Your task to perform on an android device: Search for vegetarian restaurants on Maps Image 0: 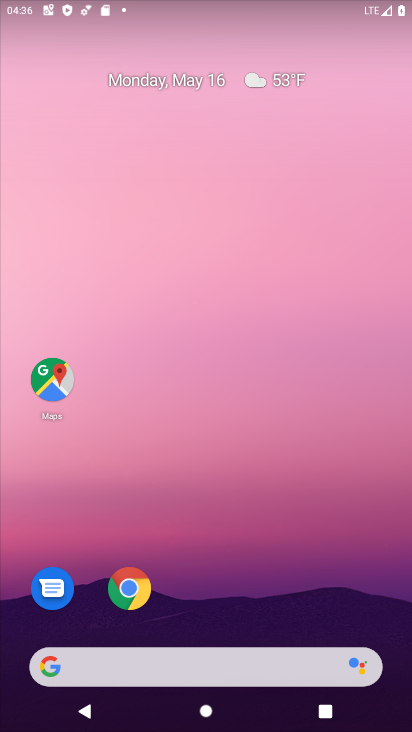
Step 0: drag from (224, 463) to (162, 6)
Your task to perform on an android device: Search for vegetarian restaurants on Maps Image 1: 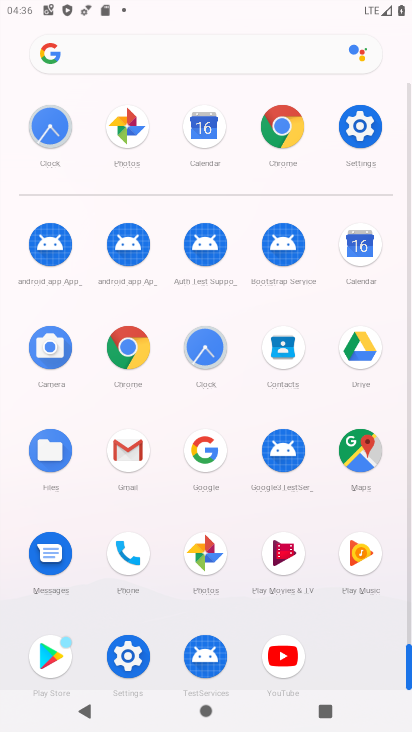
Step 1: drag from (14, 545) to (31, 287)
Your task to perform on an android device: Search for vegetarian restaurants on Maps Image 2: 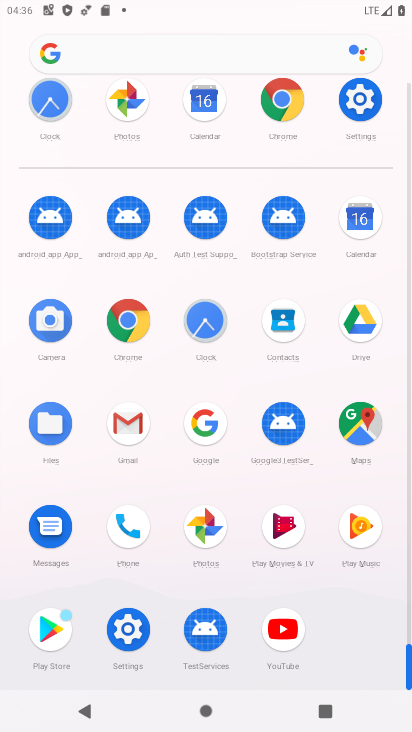
Step 2: click (361, 421)
Your task to perform on an android device: Search for vegetarian restaurants on Maps Image 3: 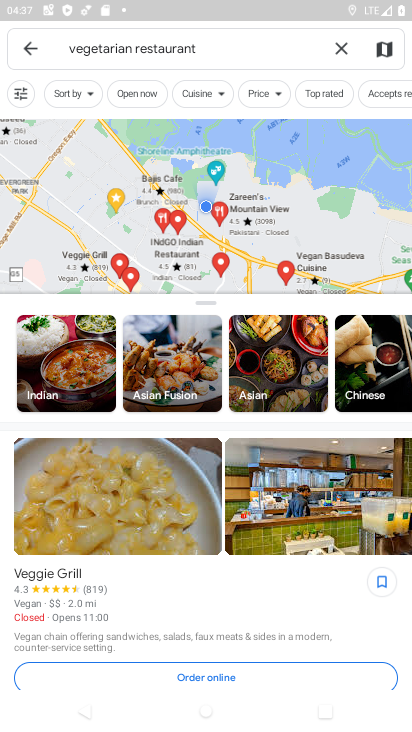
Step 3: task complete